Your task to perform on an android device: Open network settings Image 0: 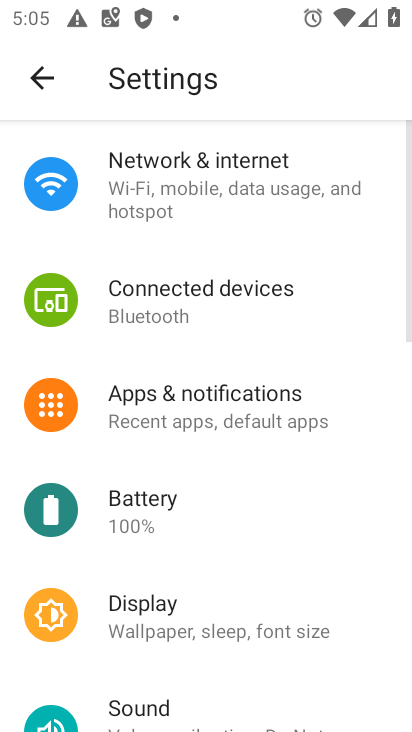
Step 0: press home button
Your task to perform on an android device: Open network settings Image 1: 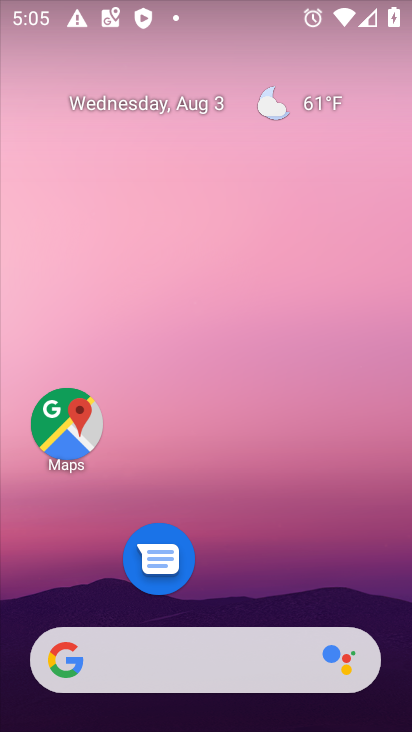
Step 1: drag from (161, 632) to (177, 121)
Your task to perform on an android device: Open network settings Image 2: 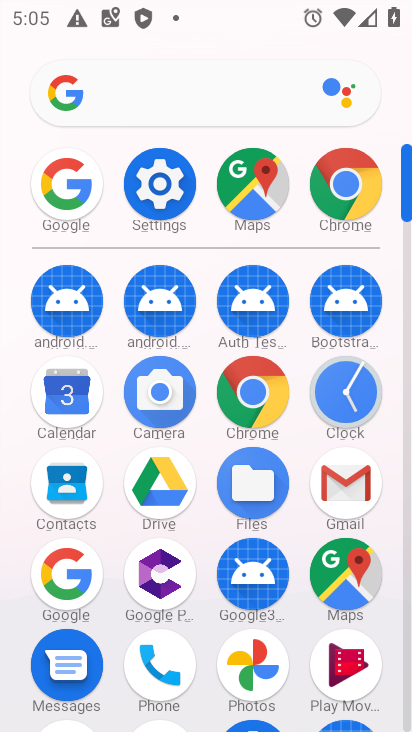
Step 2: click (166, 191)
Your task to perform on an android device: Open network settings Image 3: 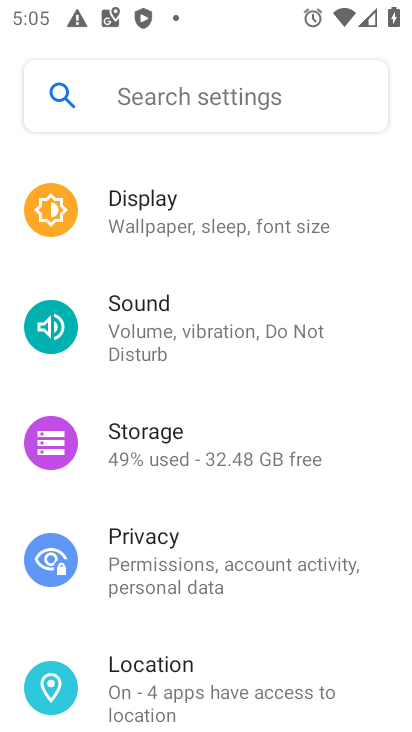
Step 3: drag from (151, 544) to (134, 219)
Your task to perform on an android device: Open network settings Image 4: 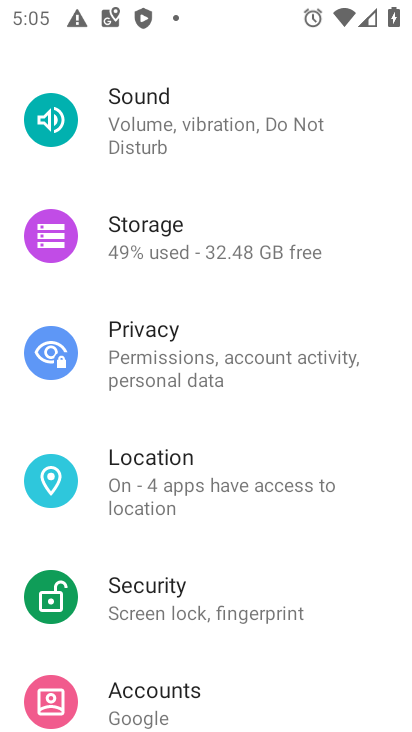
Step 4: drag from (177, 706) to (155, 422)
Your task to perform on an android device: Open network settings Image 5: 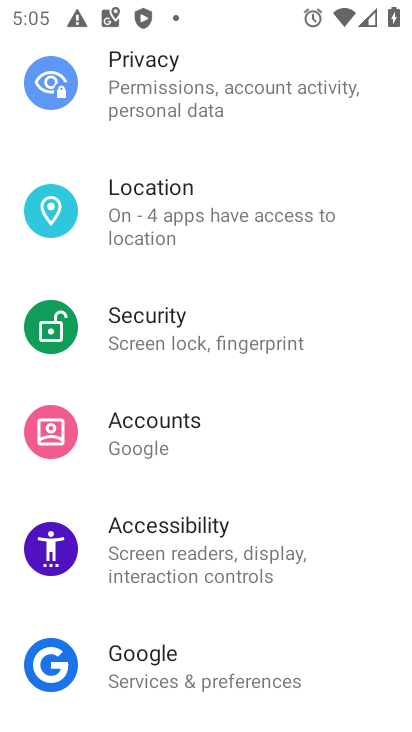
Step 5: drag from (144, 60) to (206, 506)
Your task to perform on an android device: Open network settings Image 6: 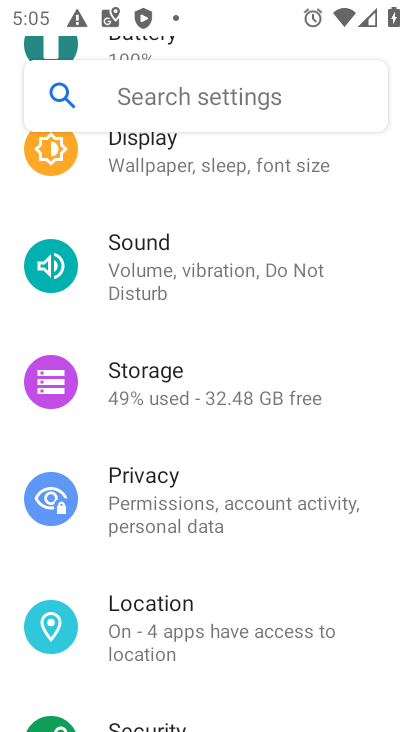
Step 6: drag from (148, 145) to (222, 517)
Your task to perform on an android device: Open network settings Image 7: 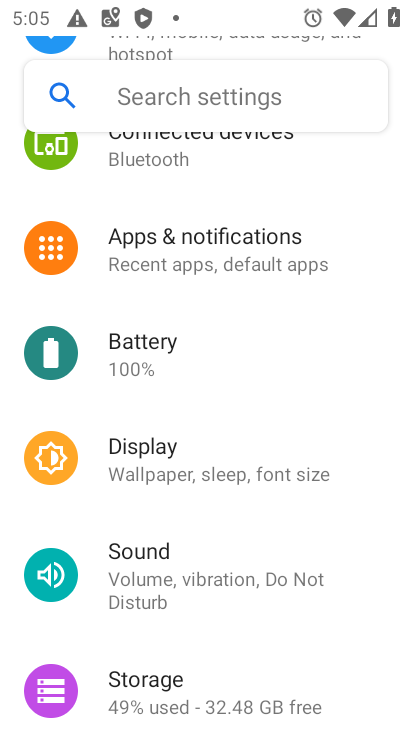
Step 7: drag from (168, 158) to (193, 469)
Your task to perform on an android device: Open network settings Image 8: 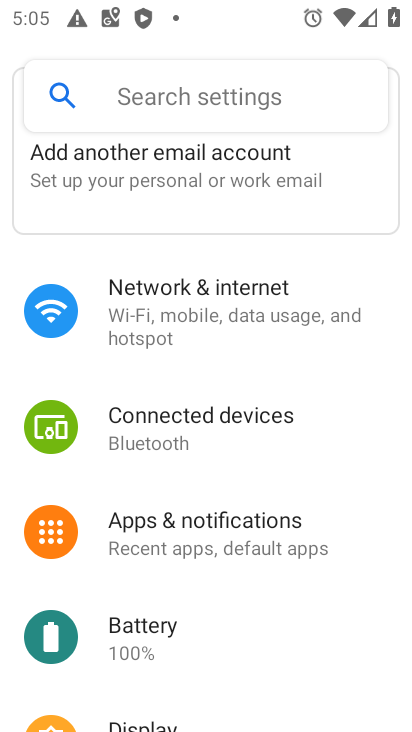
Step 8: click (141, 320)
Your task to perform on an android device: Open network settings Image 9: 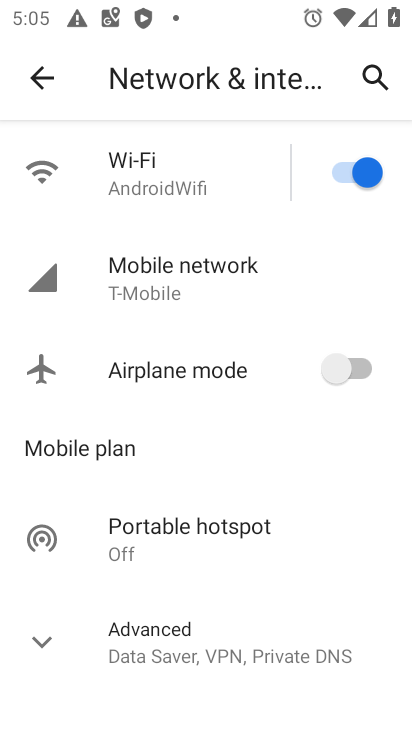
Step 9: click (155, 280)
Your task to perform on an android device: Open network settings Image 10: 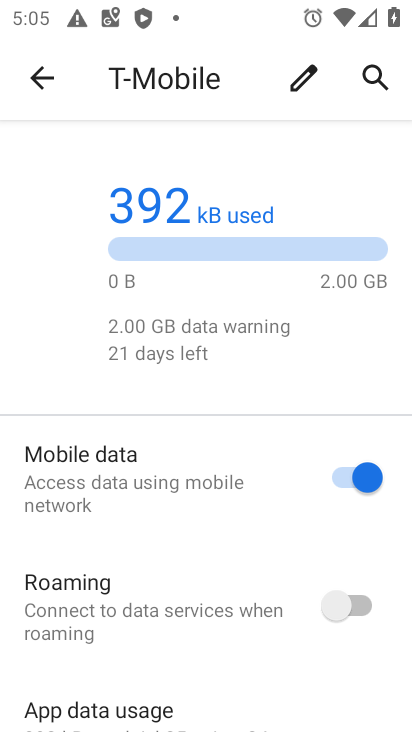
Step 10: task complete